Your task to perform on an android device: turn off picture-in-picture Image 0: 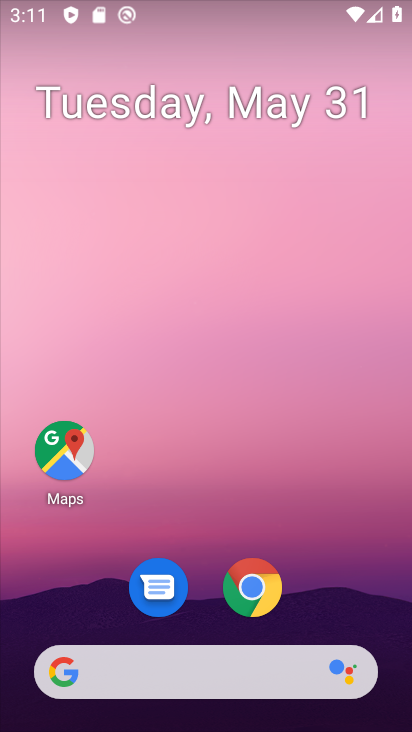
Step 0: click (247, 591)
Your task to perform on an android device: turn off picture-in-picture Image 1: 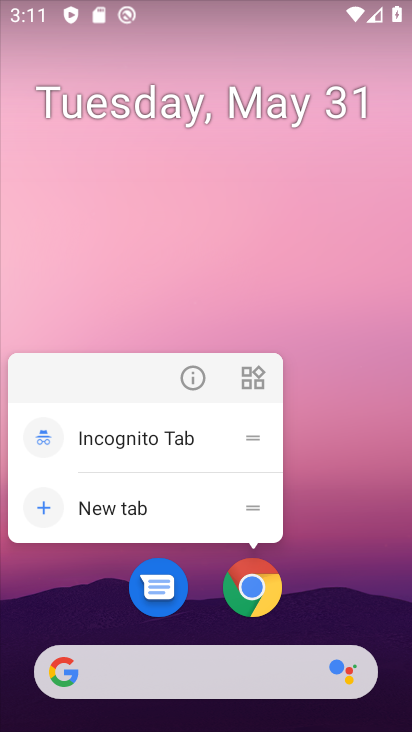
Step 1: click (190, 378)
Your task to perform on an android device: turn off picture-in-picture Image 2: 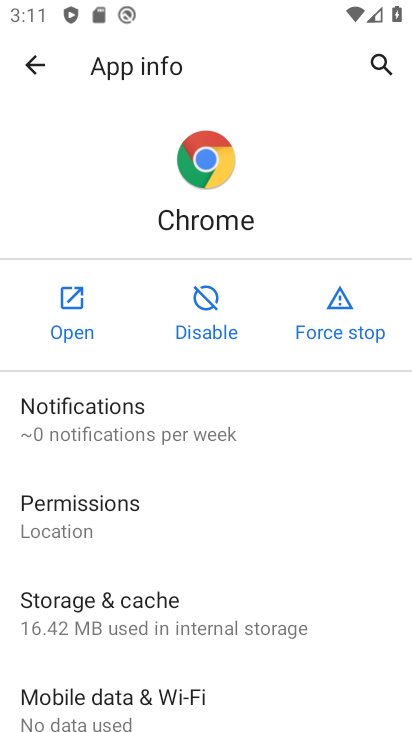
Step 2: drag from (172, 695) to (227, 83)
Your task to perform on an android device: turn off picture-in-picture Image 3: 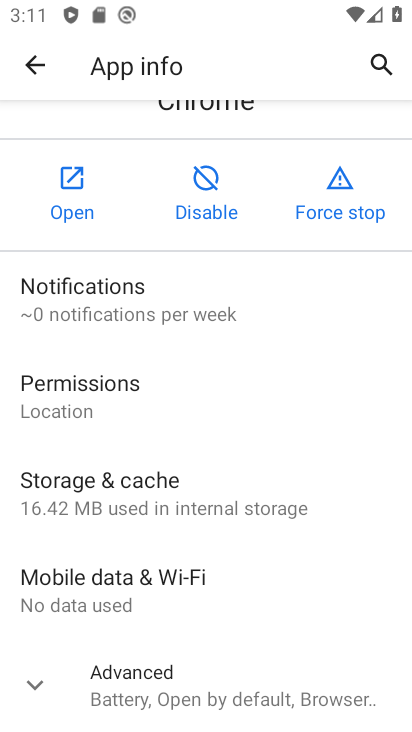
Step 3: click (121, 697)
Your task to perform on an android device: turn off picture-in-picture Image 4: 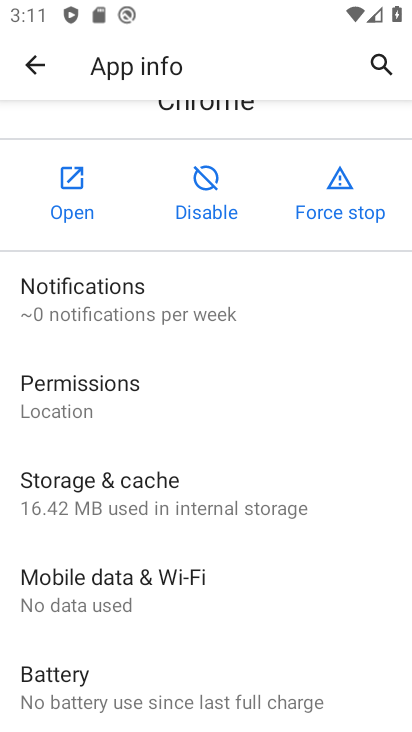
Step 4: drag from (107, 593) to (204, 174)
Your task to perform on an android device: turn off picture-in-picture Image 5: 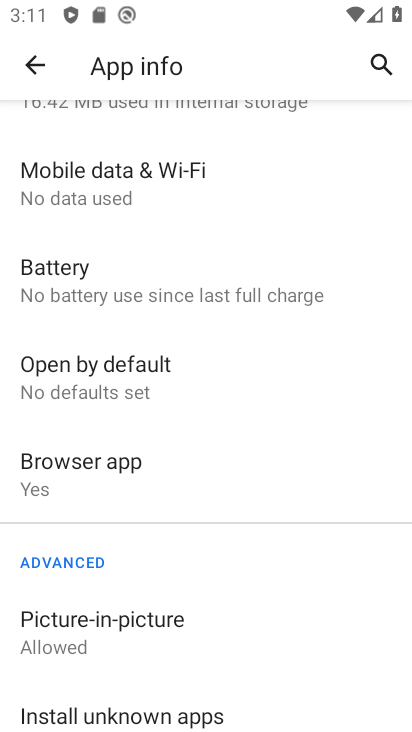
Step 5: click (87, 665)
Your task to perform on an android device: turn off picture-in-picture Image 6: 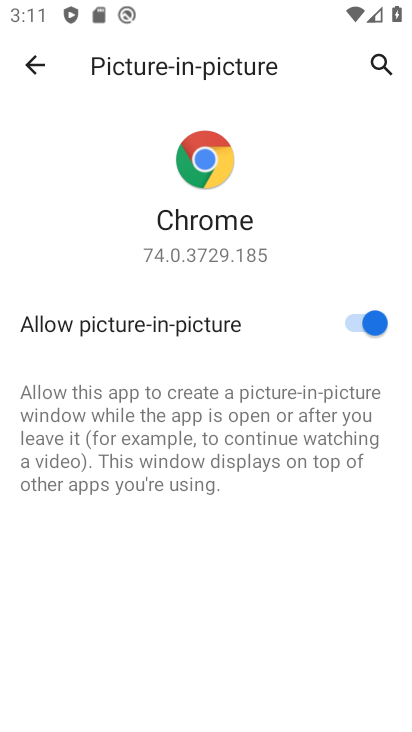
Step 6: click (359, 319)
Your task to perform on an android device: turn off picture-in-picture Image 7: 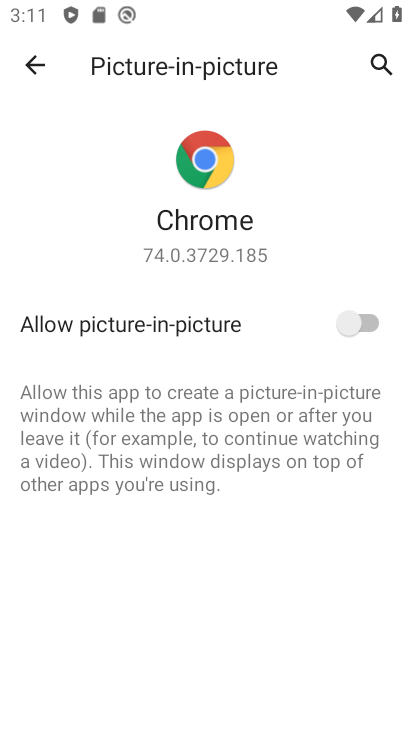
Step 7: task complete